Your task to perform on an android device: check out phone information Image 0: 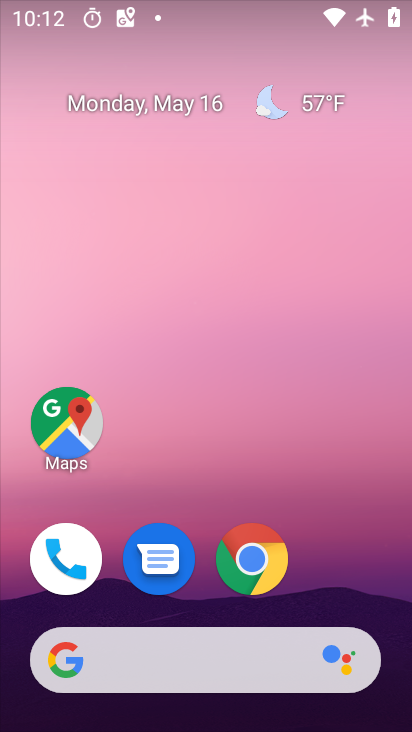
Step 0: drag from (337, 563) to (374, 138)
Your task to perform on an android device: check out phone information Image 1: 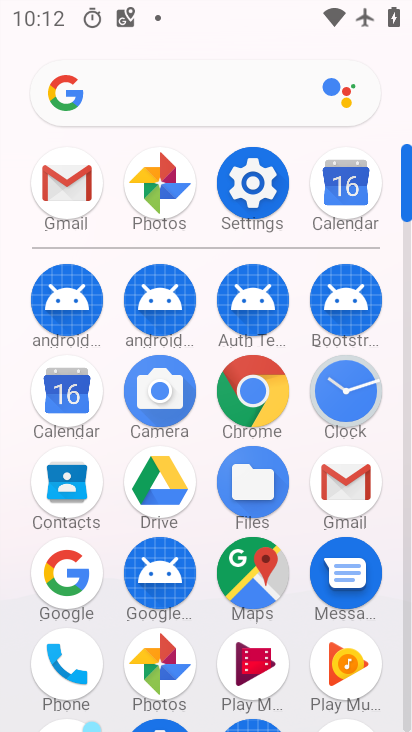
Step 1: click (54, 673)
Your task to perform on an android device: check out phone information Image 2: 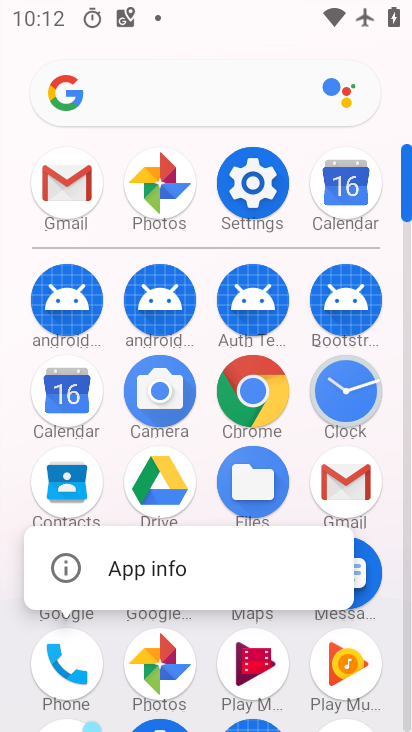
Step 2: click (151, 584)
Your task to perform on an android device: check out phone information Image 3: 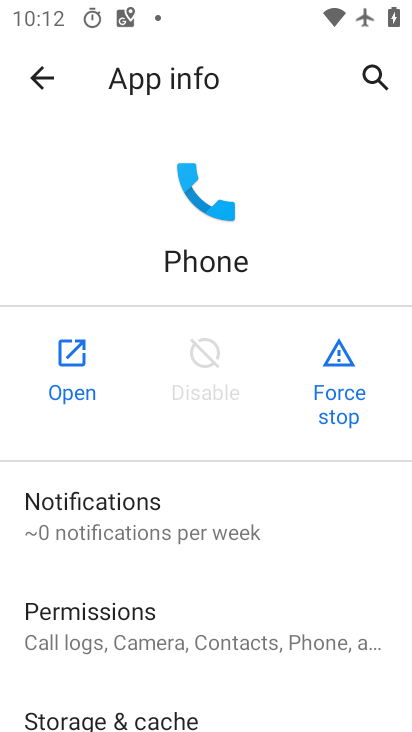
Step 3: task complete